Your task to perform on an android device: turn on sleep mode Image 0: 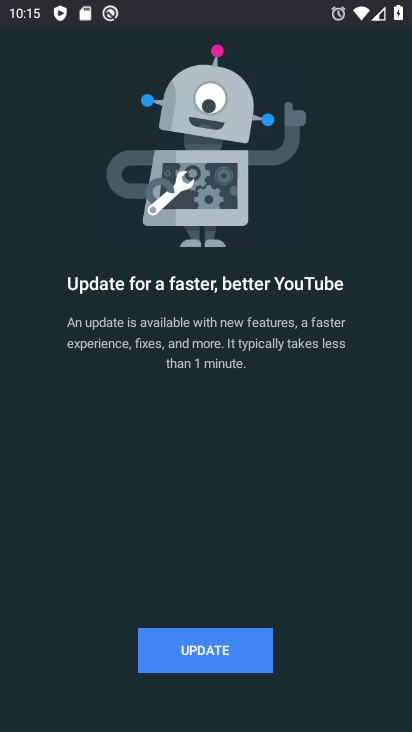
Step 0: press back button
Your task to perform on an android device: turn on sleep mode Image 1: 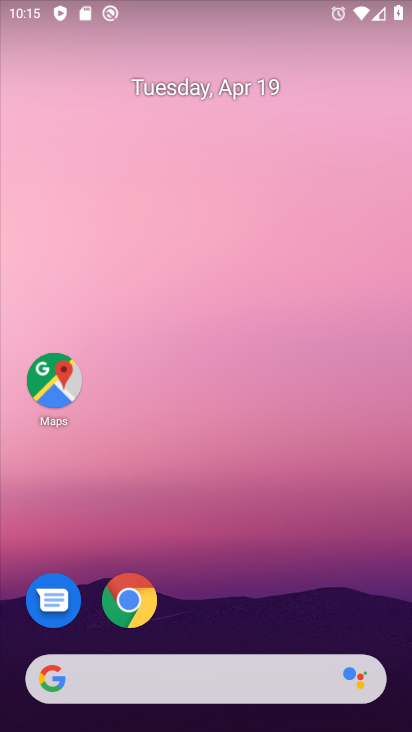
Step 1: drag from (340, 610) to (268, 183)
Your task to perform on an android device: turn on sleep mode Image 2: 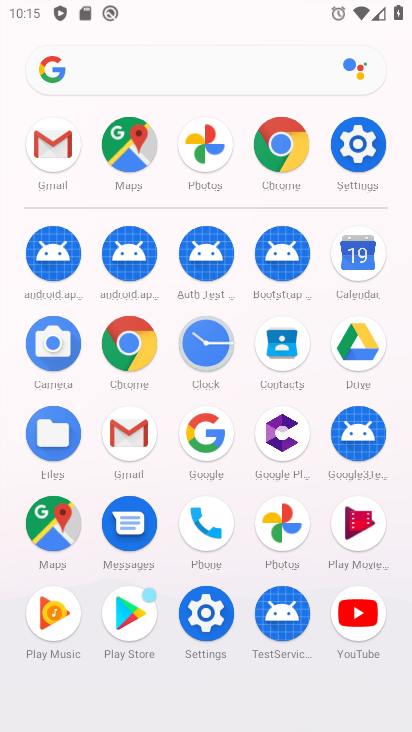
Step 2: click (352, 134)
Your task to perform on an android device: turn on sleep mode Image 3: 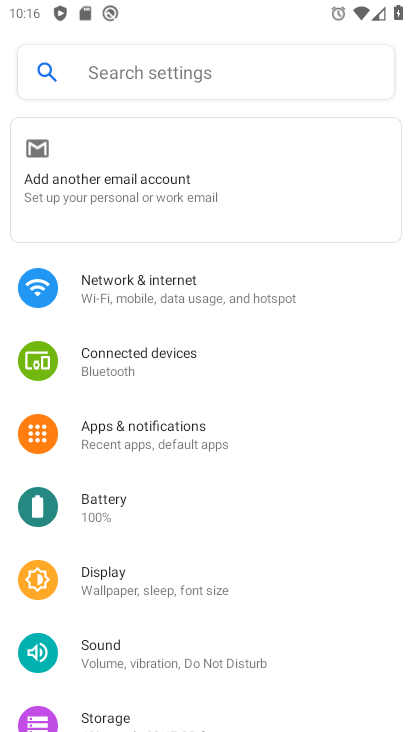
Step 3: task complete